Your task to perform on an android device: Open Maps and search for coffee Image 0: 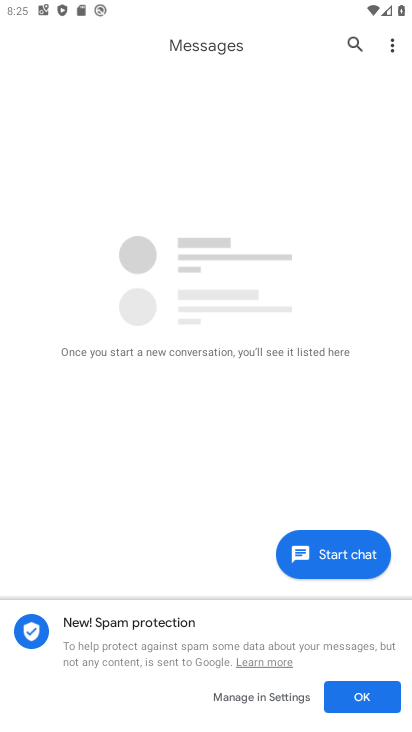
Step 0: press home button
Your task to perform on an android device: Open Maps and search for coffee Image 1: 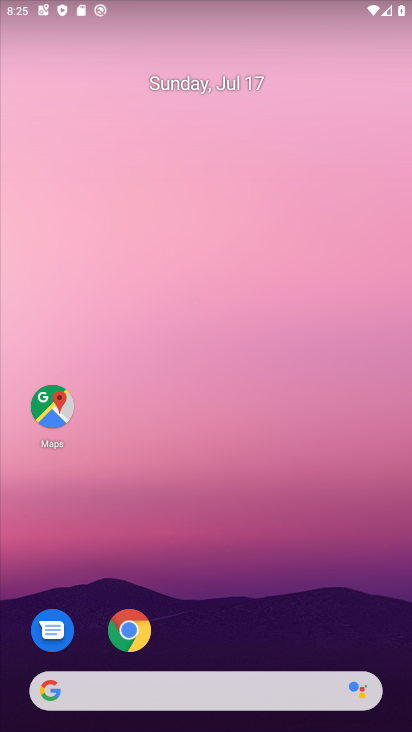
Step 1: drag from (342, 612) to (362, 110)
Your task to perform on an android device: Open Maps and search for coffee Image 2: 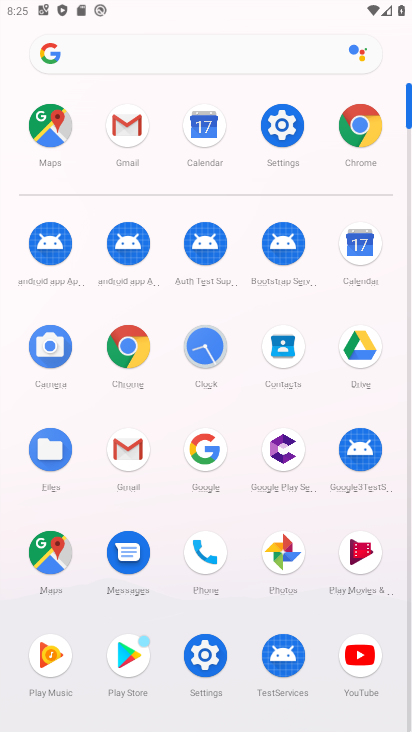
Step 2: click (50, 552)
Your task to perform on an android device: Open Maps and search for coffee Image 3: 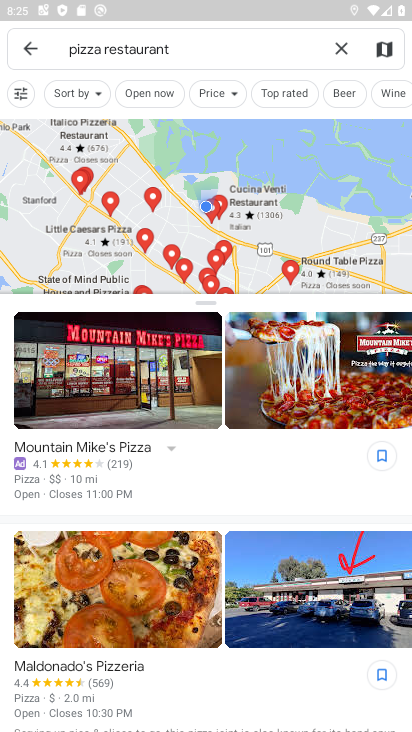
Step 3: click (337, 55)
Your task to perform on an android device: Open Maps and search for coffee Image 4: 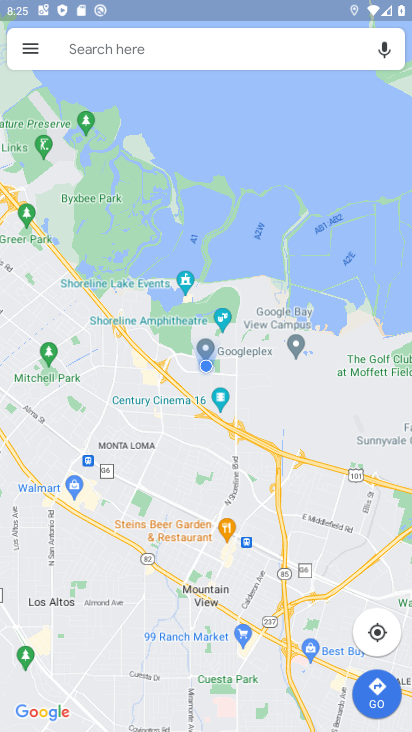
Step 4: click (109, 48)
Your task to perform on an android device: Open Maps and search for coffee Image 5: 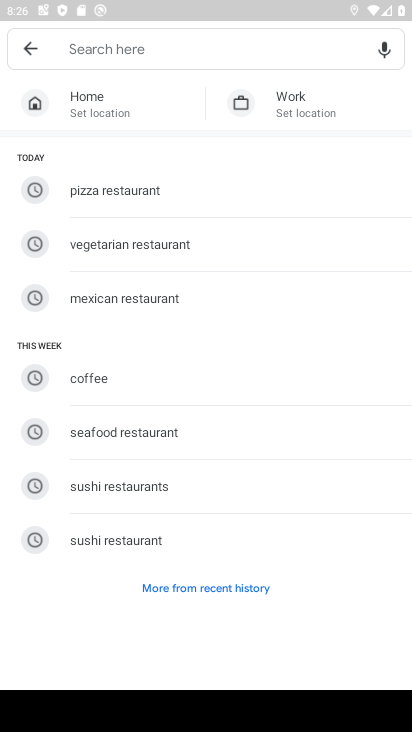
Step 5: type "coffee"
Your task to perform on an android device: Open Maps and search for coffee Image 6: 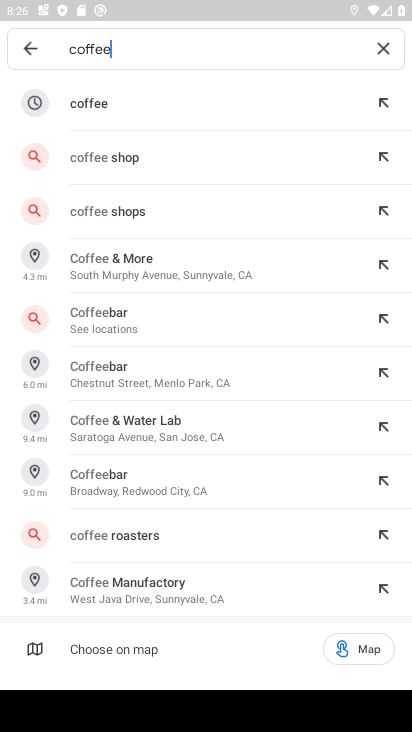
Step 6: click (273, 99)
Your task to perform on an android device: Open Maps and search for coffee Image 7: 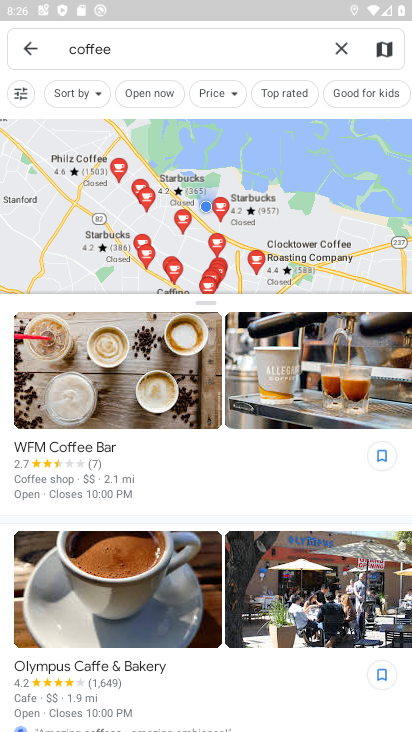
Step 7: task complete